Your task to perform on an android device: turn on the 24-hour format for clock Image 0: 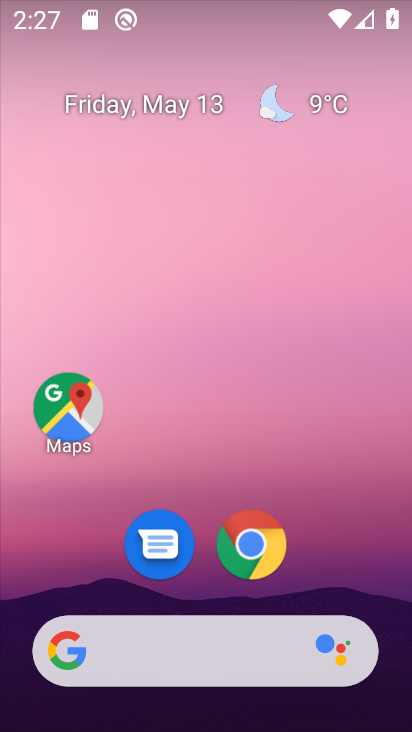
Step 0: drag from (378, 560) to (242, 12)
Your task to perform on an android device: turn on the 24-hour format for clock Image 1: 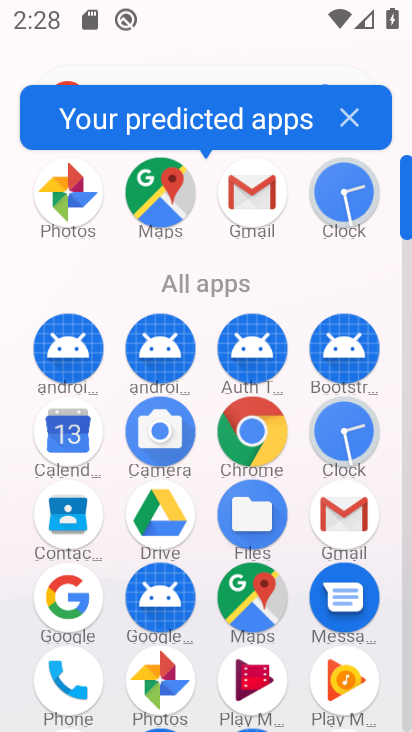
Step 1: drag from (26, 568) to (17, 241)
Your task to perform on an android device: turn on the 24-hour format for clock Image 2: 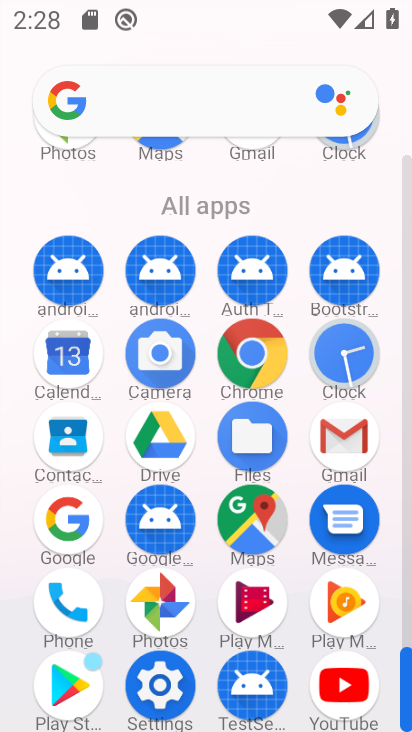
Step 2: click (344, 347)
Your task to perform on an android device: turn on the 24-hour format for clock Image 3: 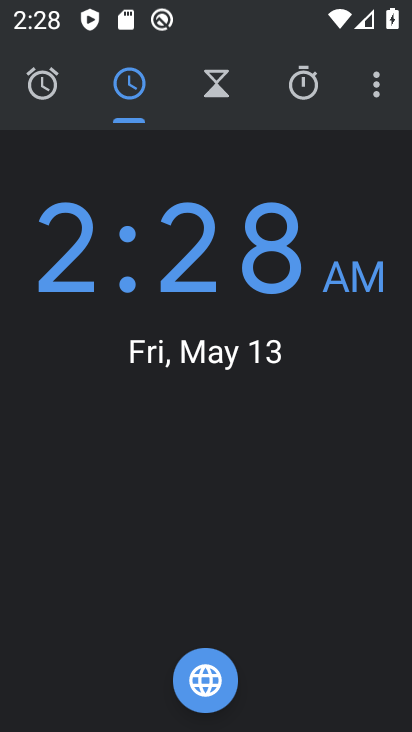
Step 3: drag from (380, 91) to (287, 156)
Your task to perform on an android device: turn on the 24-hour format for clock Image 4: 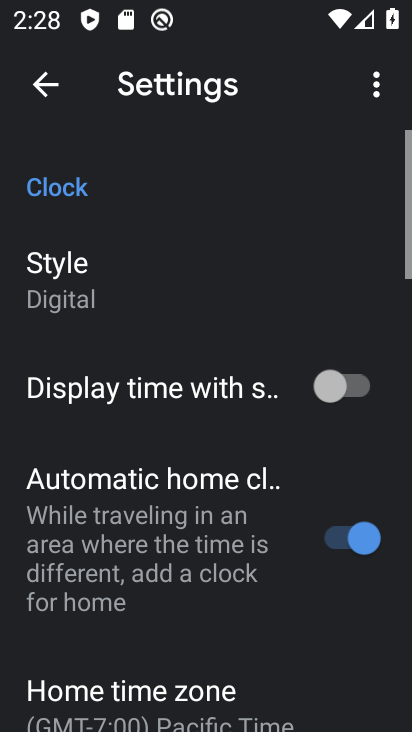
Step 4: drag from (244, 584) to (223, 184)
Your task to perform on an android device: turn on the 24-hour format for clock Image 5: 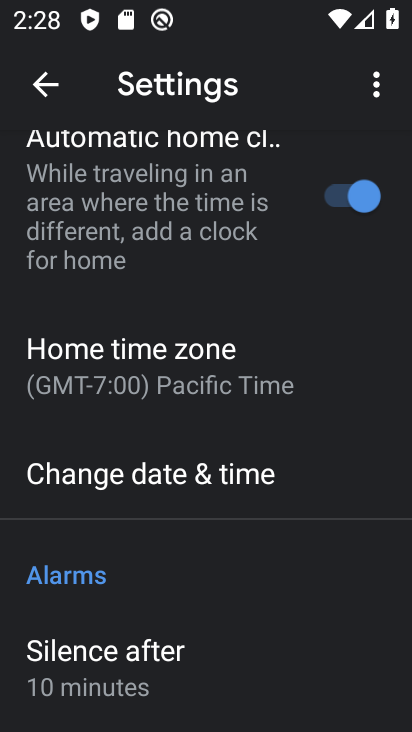
Step 5: drag from (180, 571) to (201, 212)
Your task to perform on an android device: turn on the 24-hour format for clock Image 6: 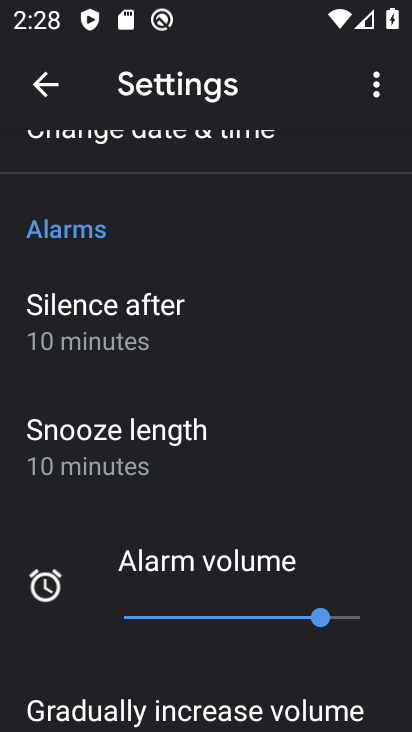
Step 6: drag from (218, 220) to (237, 357)
Your task to perform on an android device: turn on the 24-hour format for clock Image 7: 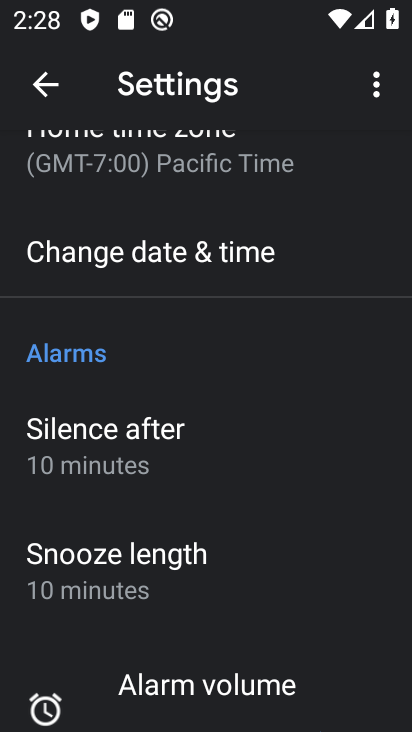
Step 7: click (204, 257)
Your task to perform on an android device: turn on the 24-hour format for clock Image 8: 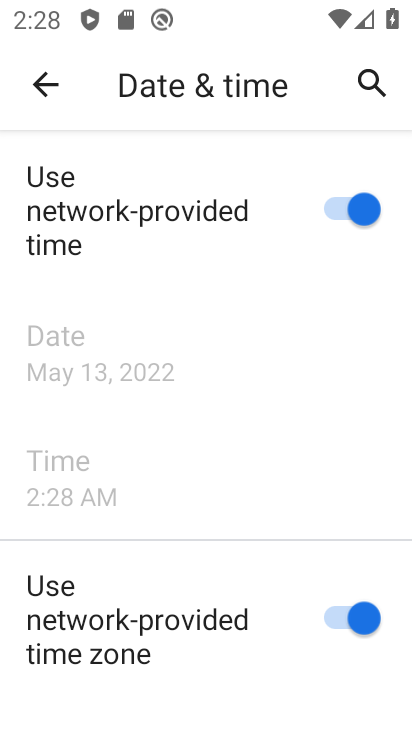
Step 8: drag from (227, 584) to (227, 232)
Your task to perform on an android device: turn on the 24-hour format for clock Image 9: 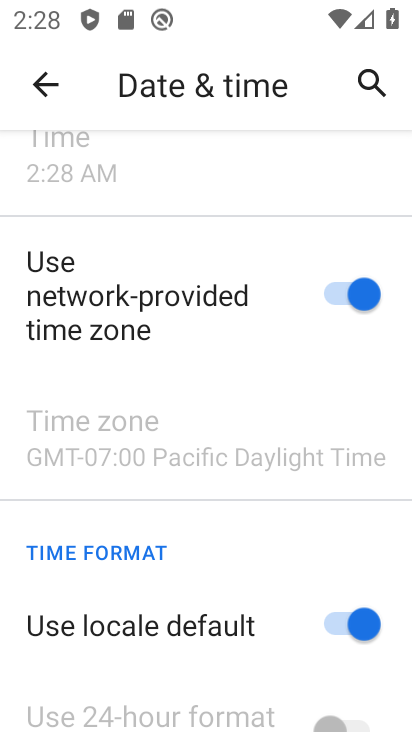
Step 9: drag from (236, 561) to (238, 260)
Your task to perform on an android device: turn on the 24-hour format for clock Image 10: 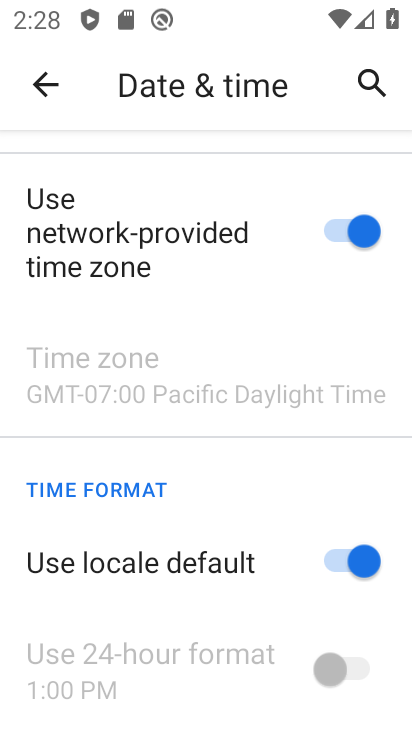
Step 10: drag from (203, 568) to (215, 262)
Your task to perform on an android device: turn on the 24-hour format for clock Image 11: 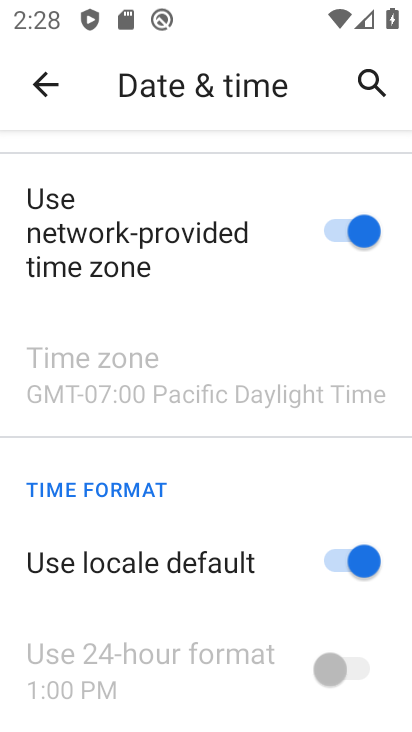
Step 11: click (337, 567)
Your task to perform on an android device: turn on the 24-hour format for clock Image 12: 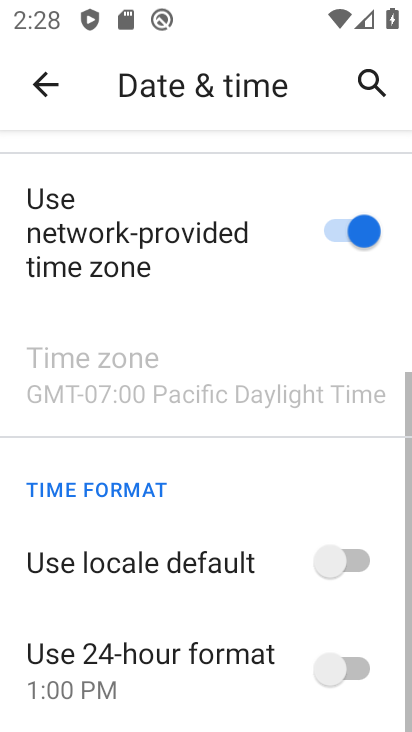
Step 12: click (357, 665)
Your task to perform on an android device: turn on the 24-hour format for clock Image 13: 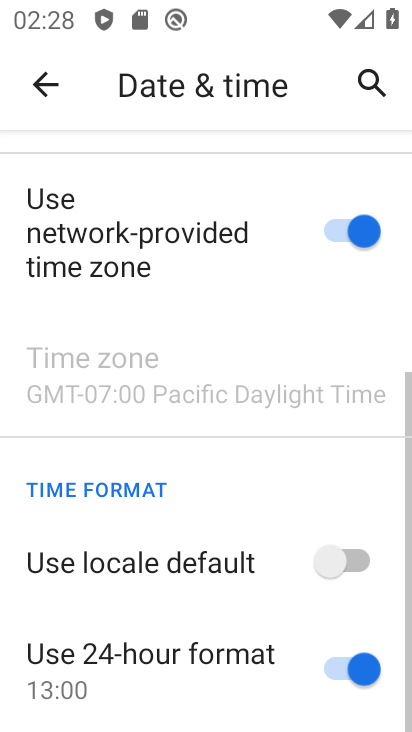
Step 13: task complete